Your task to perform on an android device: set default search engine in the chrome app Image 0: 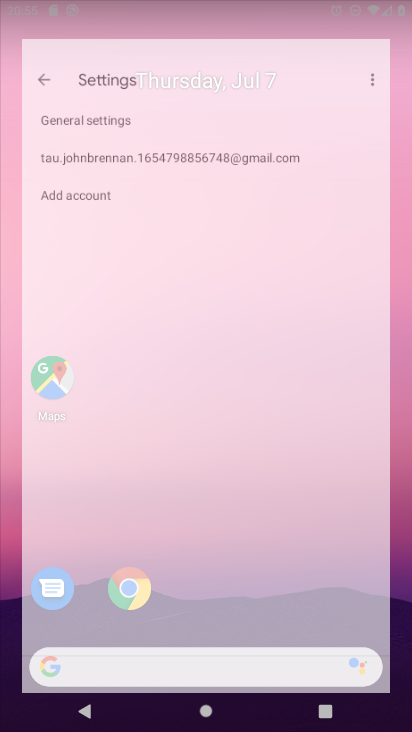
Step 0: drag from (236, 638) to (206, 176)
Your task to perform on an android device: set default search engine in the chrome app Image 1: 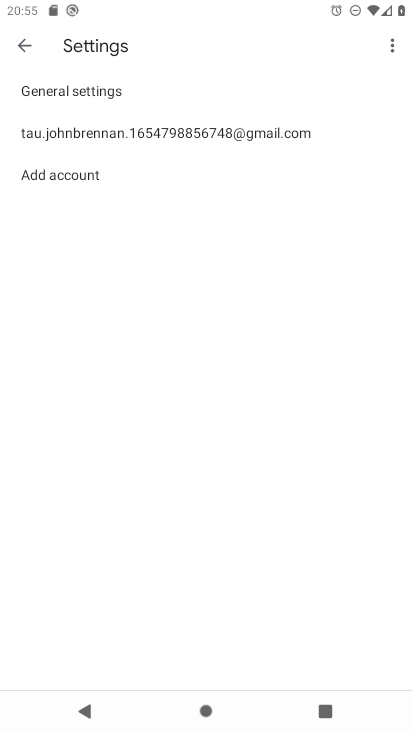
Step 1: press home button
Your task to perform on an android device: set default search engine in the chrome app Image 2: 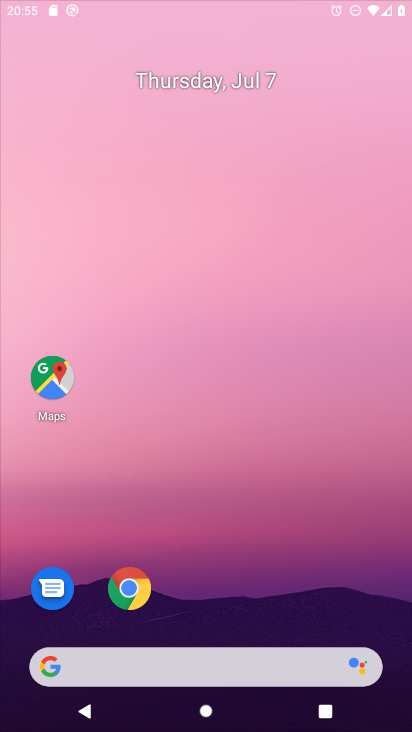
Step 2: drag from (240, 591) to (231, 149)
Your task to perform on an android device: set default search engine in the chrome app Image 3: 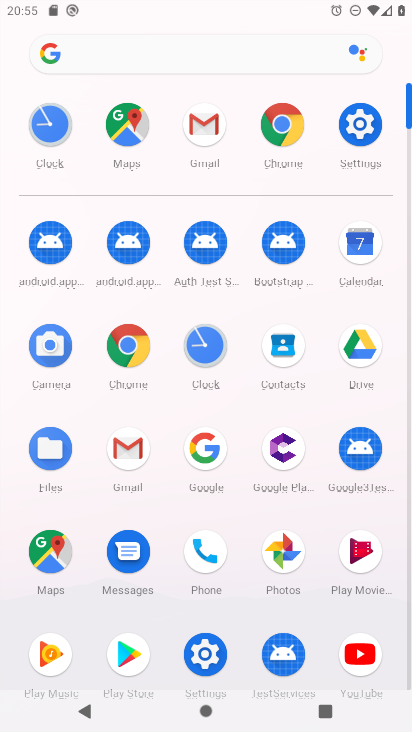
Step 3: click (137, 330)
Your task to perform on an android device: set default search engine in the chrome app Image 4: 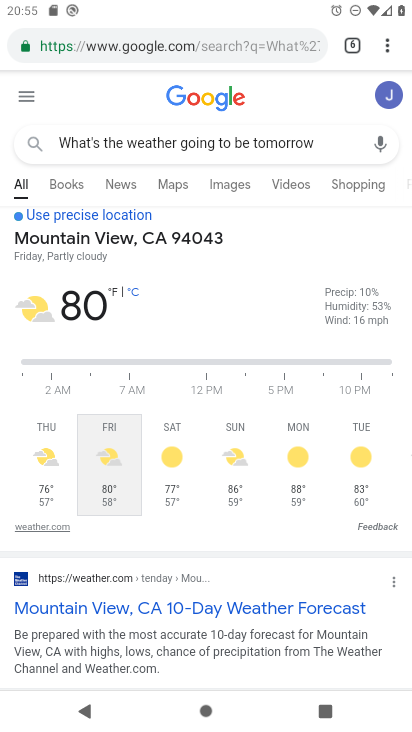
Step 4: click (396, 37)
Your task to perform on an android device: set default search engine in the chrome app Image 5: 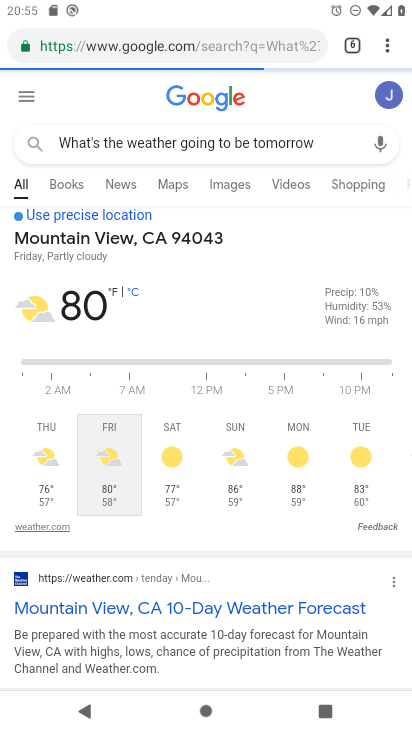
Step 5: click (385, 45)
Your task to perform on an android device: set default search engine in the chrome app Image 6: 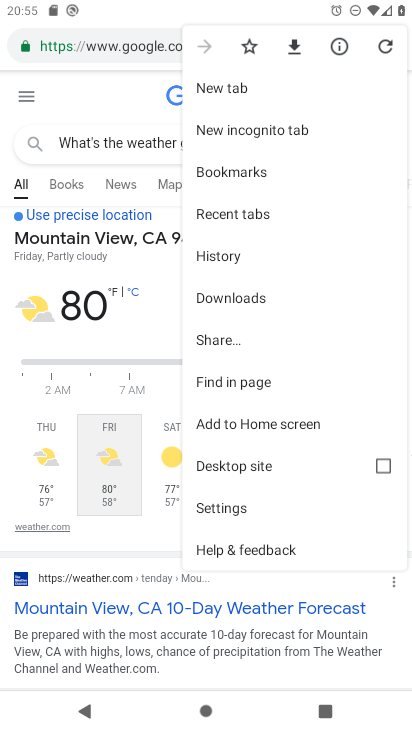
Step 6: click (237, 504)
Your task to perform on an android device: set default search engine in the chrome app Image 7: 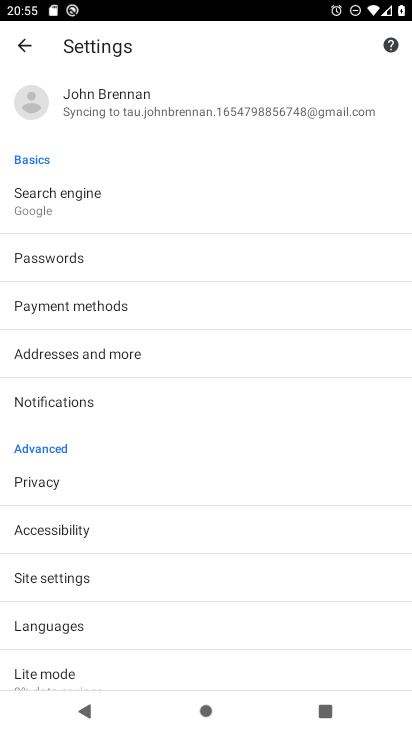
Step 7: click (83, 200)
Your task to perform on an android device: set default search engine in the chrome app Image 8: 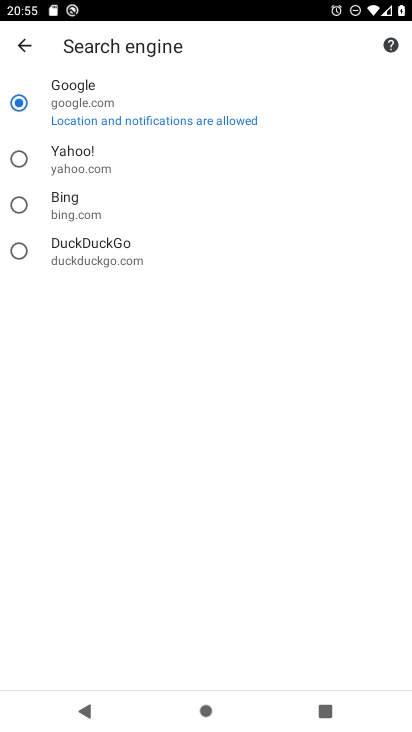
Step 8: click (59, 155)
Your task to perform on an android device: set default search engine in the chrome app Image 9: 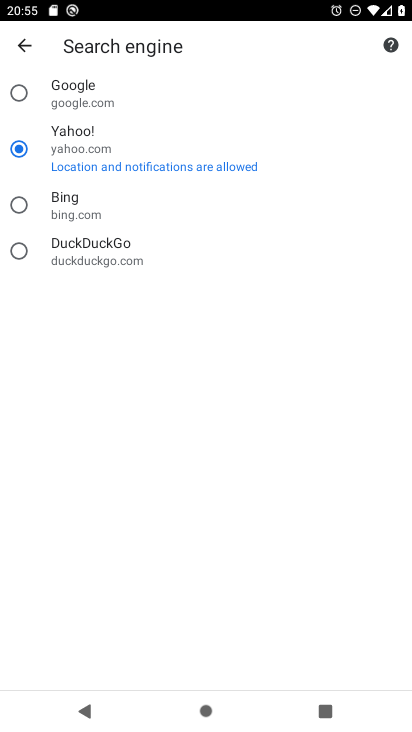
Step 9: task complete